Your task to perform on an android device: Toggle the flashlight Image 0: 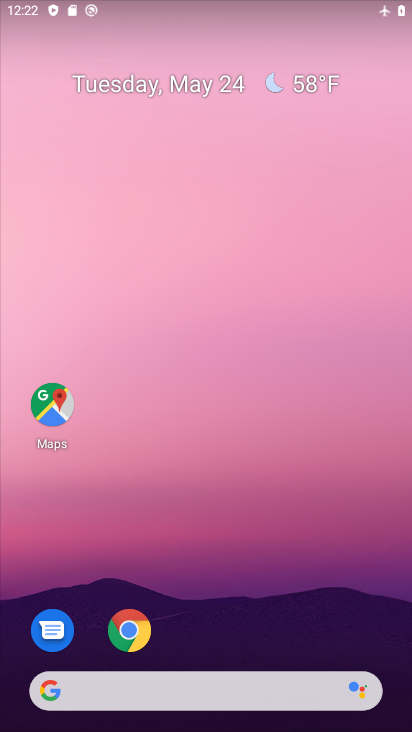
Step 0: drag from (254, 625) to (277, 243)
Your task to perform on an android device: Toggle the flashlight Image 1: 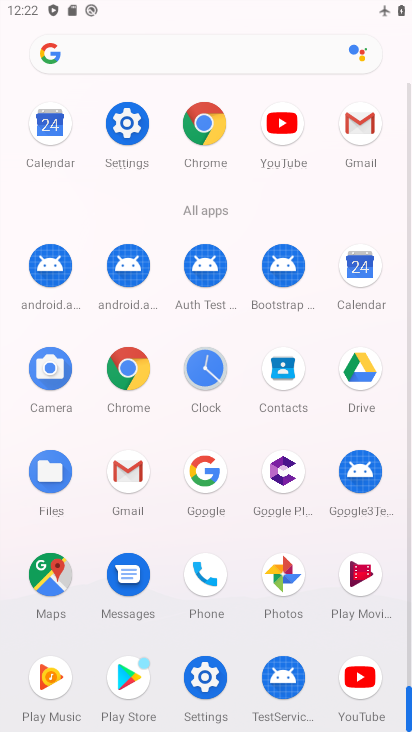
Step 1: click (209, 676)
Your task to perform on an android device: Toggle the flashlight Image 2: 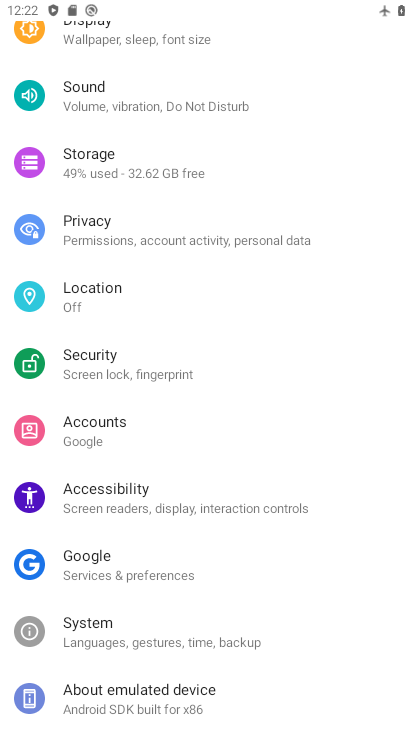
Step 2: drag from (114, 479) to (147, 387)
Your task to perform on an android device: Toggle the flashlight Image 3: 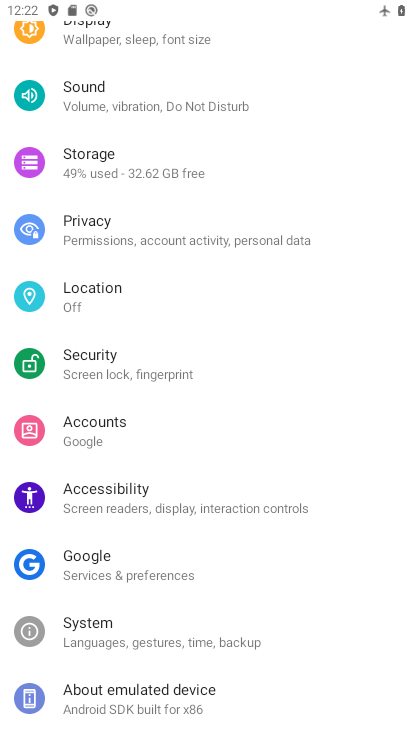
Step 3: drag from (160, 354) to (182, 422)
Your task to perform on an android device: Toggle the flashlight Image 4: 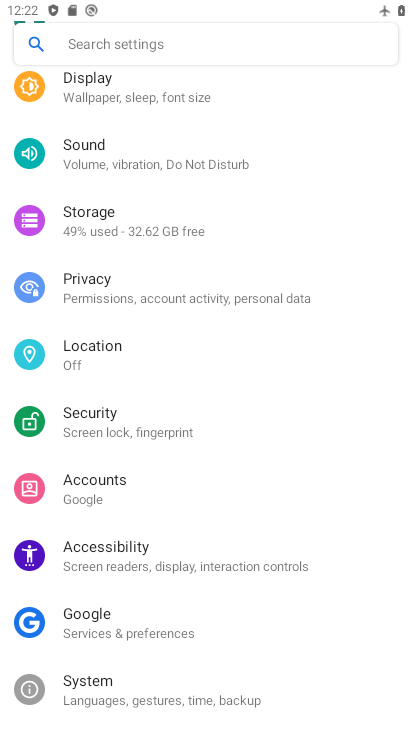
Step 4: click (141, 97)
Your task to perform on an android device: Toggle the flashlight Image 5: 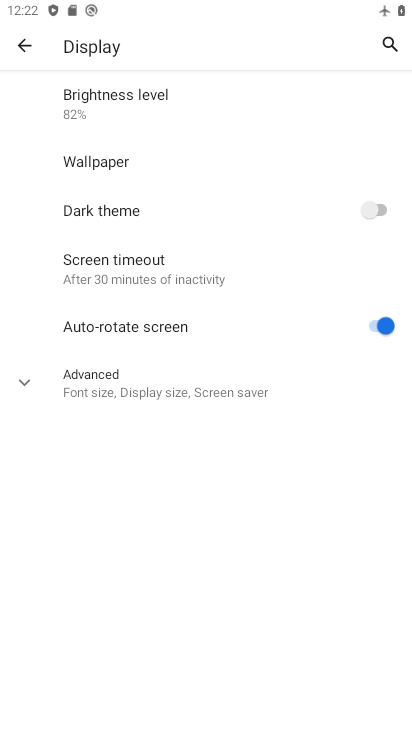
Step 5: drag from (187, 251) to (204, 376)
Your task to perform on an android device: Toggle the flashlight Image 6: 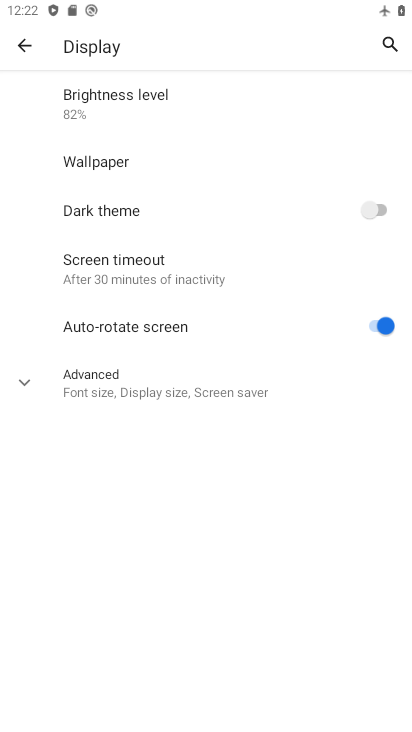
Step 6: drag from (198, 385) to (211, 271)
Your task to perform on an android device: Toggle the flashlight Image 7: 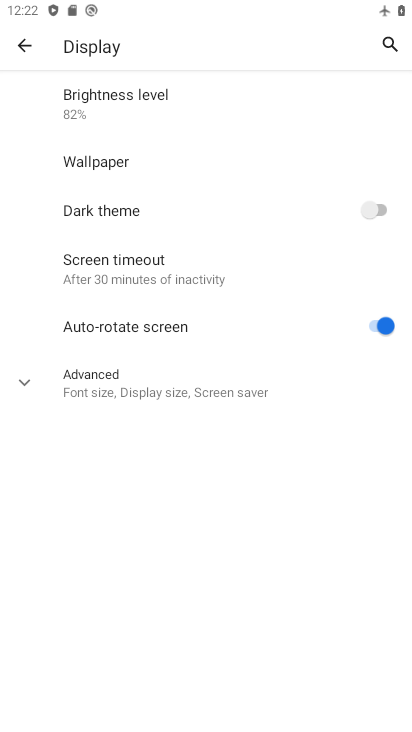
Step 7: click (172, 279)
Your task to perform on an android device: Toggle the flashlight Image 8: 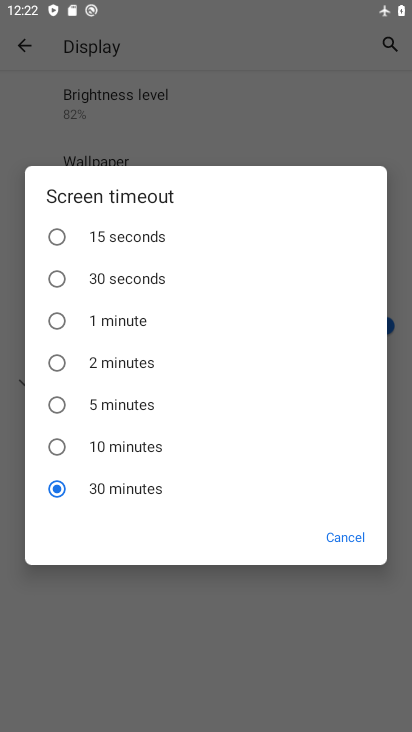
Step 8: click (334, 539)
Your task to perform on an android device: Toggle the flashlight Image 9: 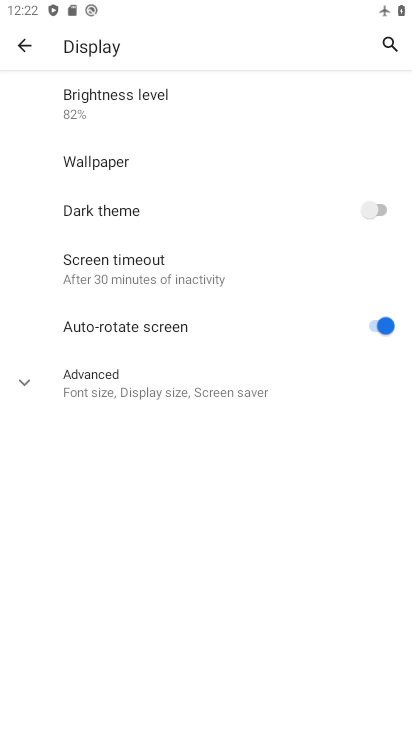
Step 9: click (163, 396)
Your task to perform on an android device: Toggle the flashlight Image 10: 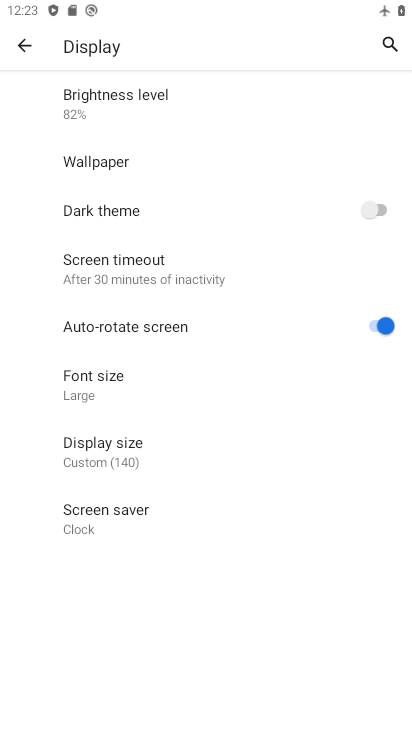
Step 10: task complete